Your task to perform on an android device: Is it going to rain tomorrow? Image 0: 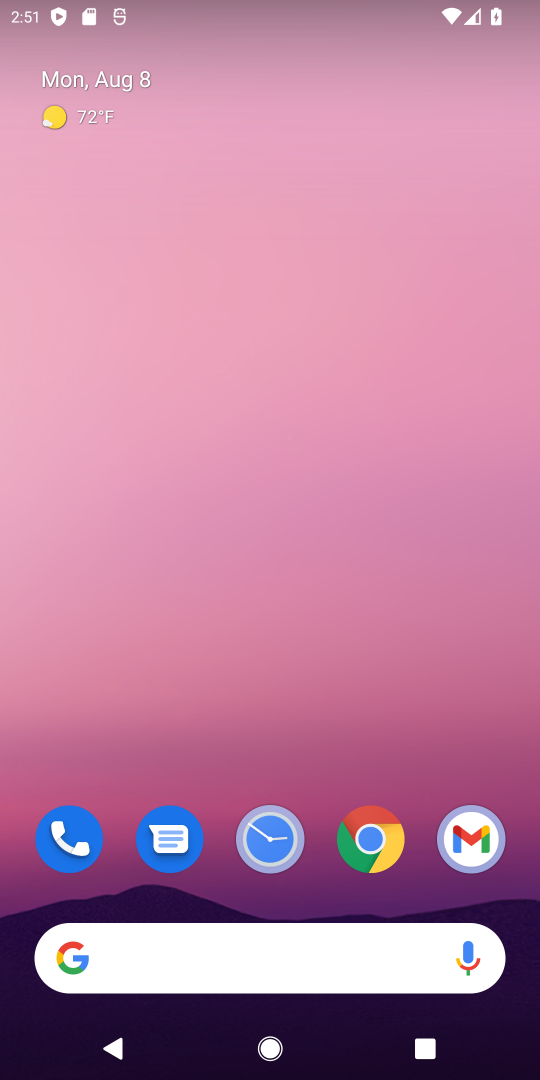
Step 0: press home button
Your task to perform on an android device: Is it going to rain tomorrow? Image 1: 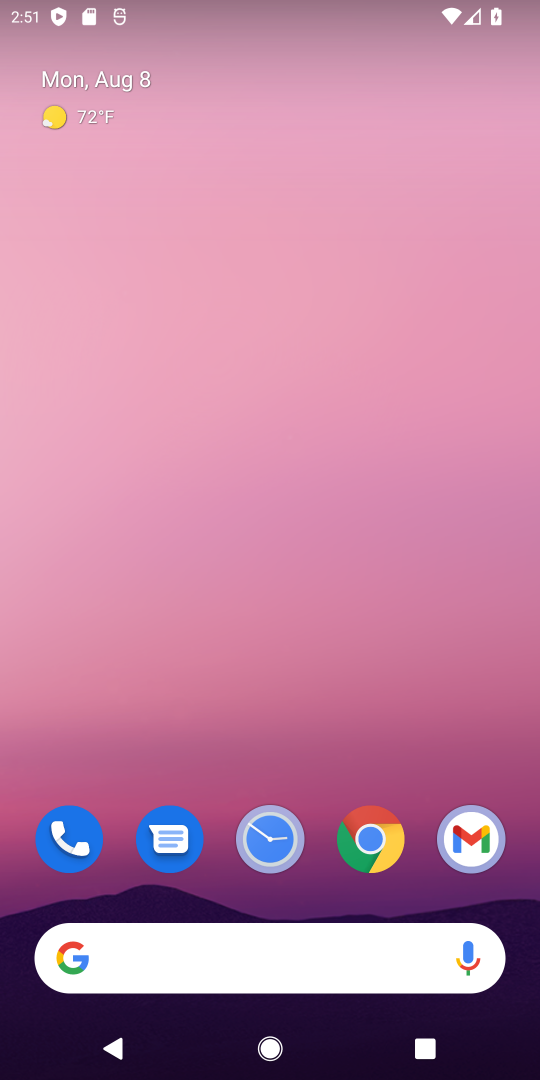
Step 1: click (238, 948)
Your task to perform on an android device: Is it going to rain tomorrow? Image 2: 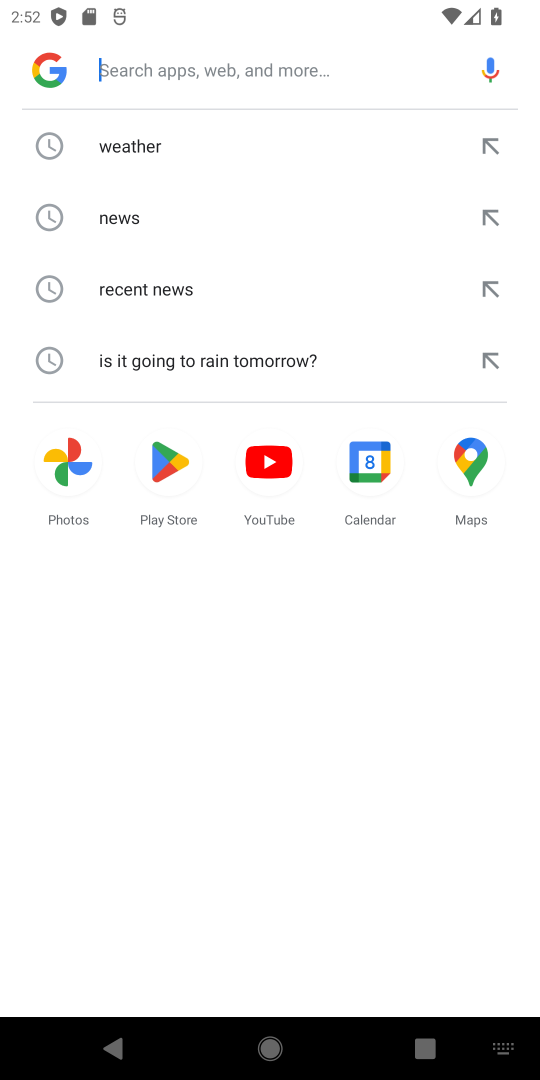
Step 2: click (156, 141)
Your task to perform on an android device: Is it going to rain tomorrow? Image 3: 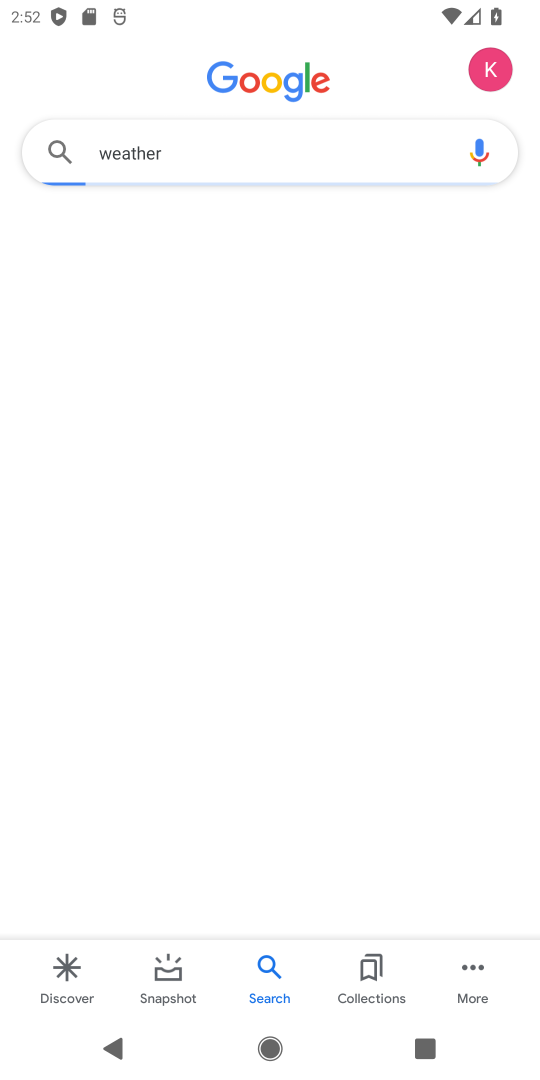
Step 3: click (111, 149)
Your task to perform on an android device: Is it going to rain tomorrow? Image 4: 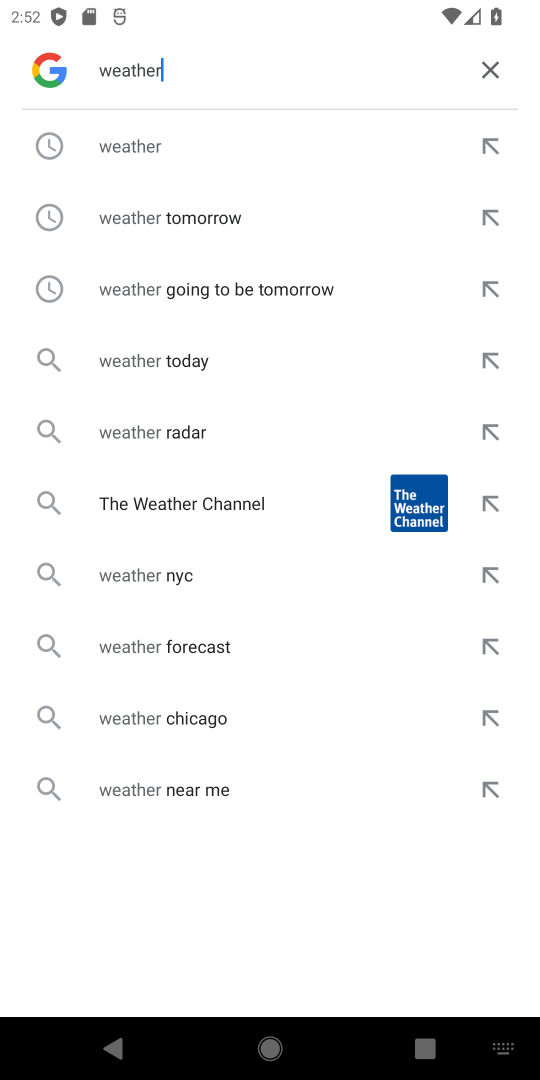
Step 4: task complete